Your task to perform on an android device: Open Youtube and go to "Your channel" Image 0: 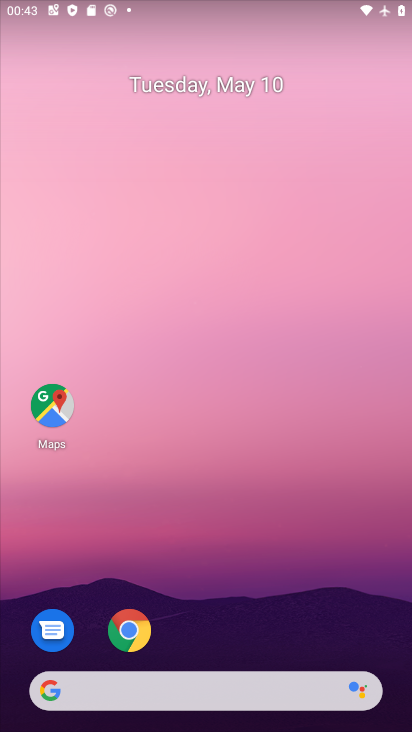
Step 0: drag from (206, 725) to (205, 205)
Your task to perform on an android device: Open Youtube and go to "Your channel" Image 1: 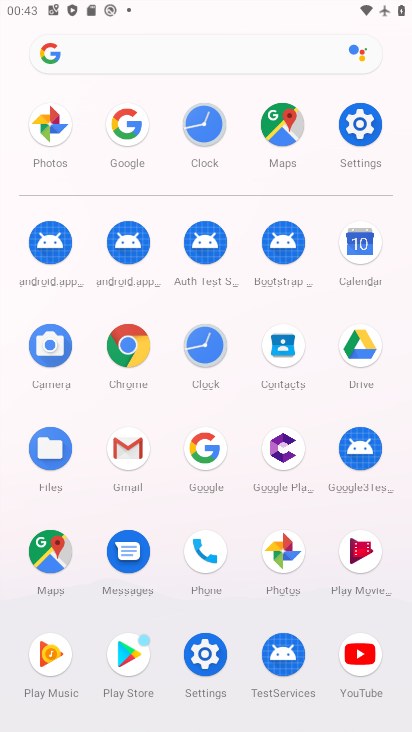
Step 1: click (353, 646)
Your task to perform on an android device: Open Youtube and go to "Your channel" Image 2: 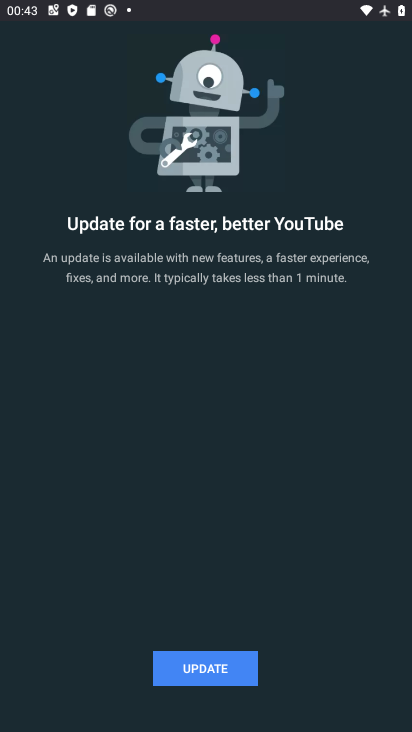
Step 2: click (222, 667)
Your task to perform on an android device: Open Youtube and go to "Your channel" Image 3: 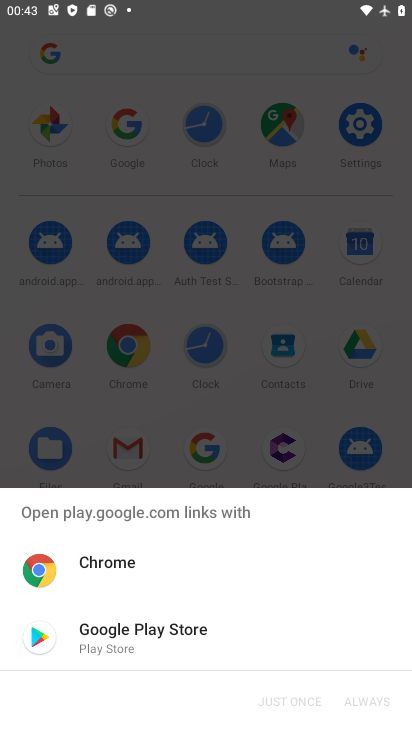
Step 3: click (162, 628)
Your task to perform on an android device: Open Youtube and go to "Your channel" Image 4: 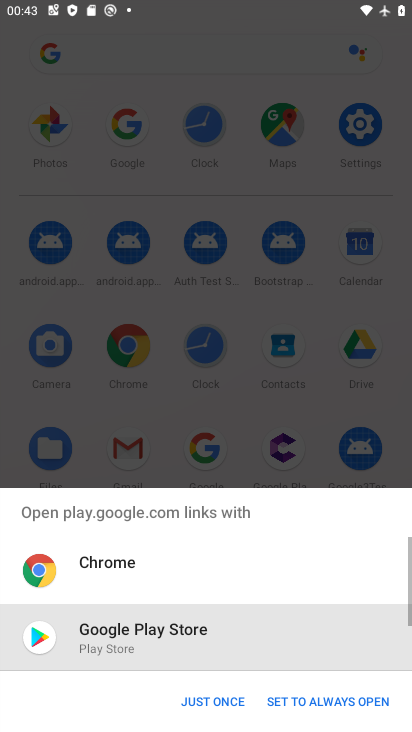
Step 4: click (221, 700)
Your task to perform on an android device: Open Youtube and go to "Your channel" Image 5: 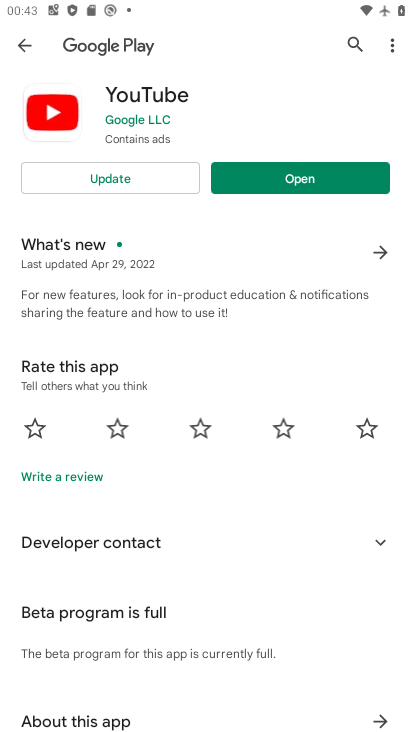
Step 5: click (169, 174)
Your task to perform on an android device: Open Youtube and go to "Your channel" Image 6: 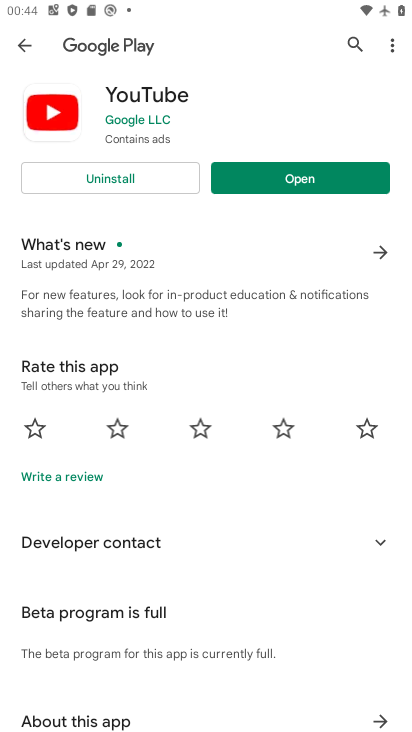
Step 6: click (282, 179)
Your task to perform on an android device: Open Youtube and go to "Your channel" Image 7: 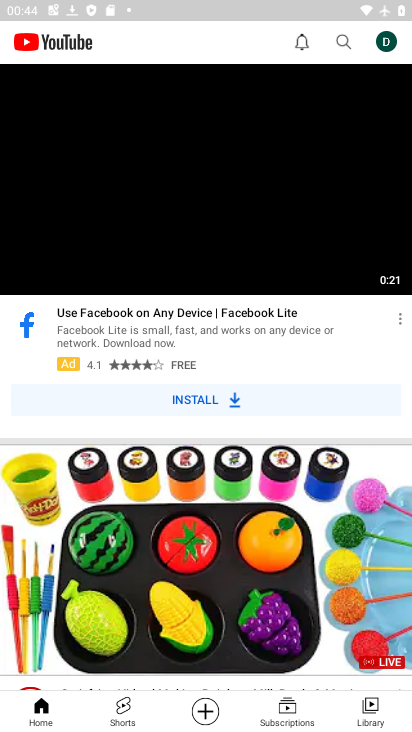
Step 7: click (386, 37)
Your task to perform on an android device: Open Youtube and go to "Your channel" Image 8: 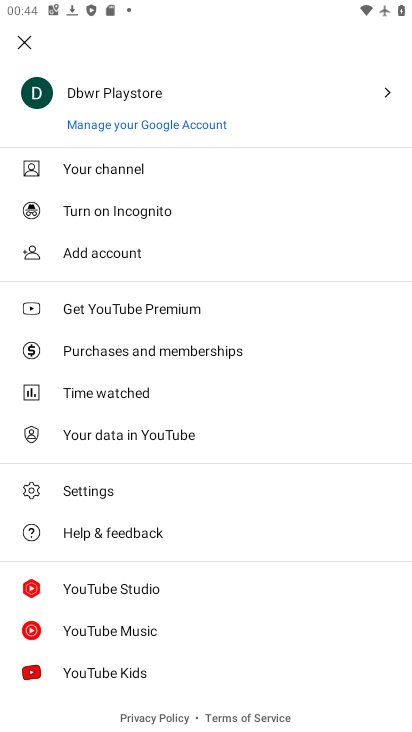
Step 8: click (113, 168)
Your task to perform on an android device: Open Youtube and go to "Your channel" Image 9: 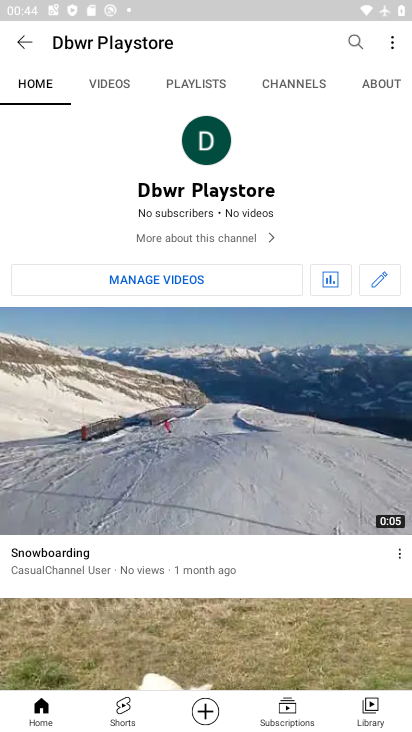
Step 9: task complete